Your task to perform on an android device: What is the news today? Image 0: 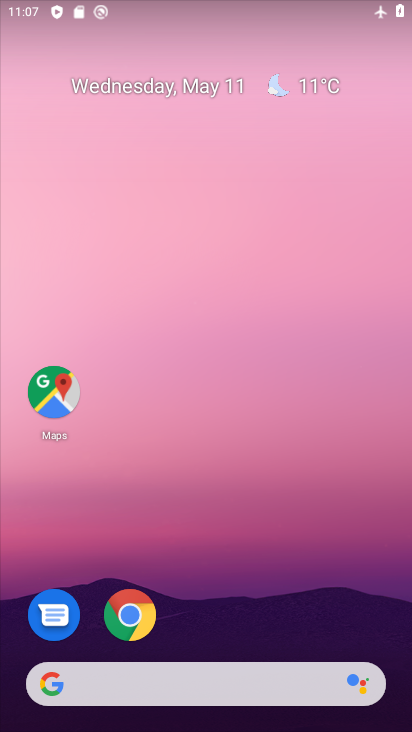
Step 0: click (122, 615)
Your task to perform on an android device: What is the news today? Image 1: 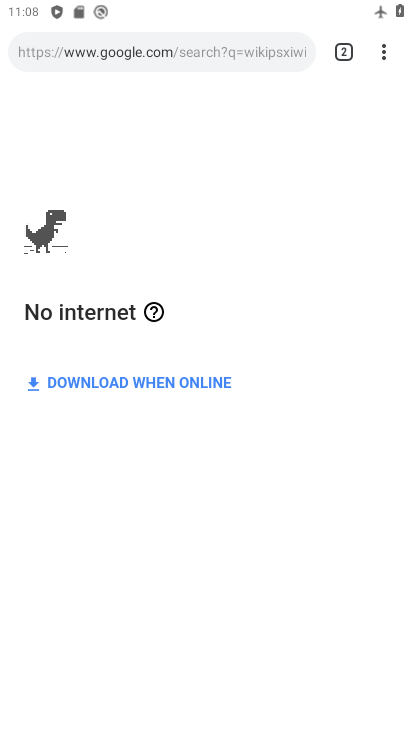
Step 1: click (200, 50)
Your task to perform on an android device: What is the news today? Image 2: 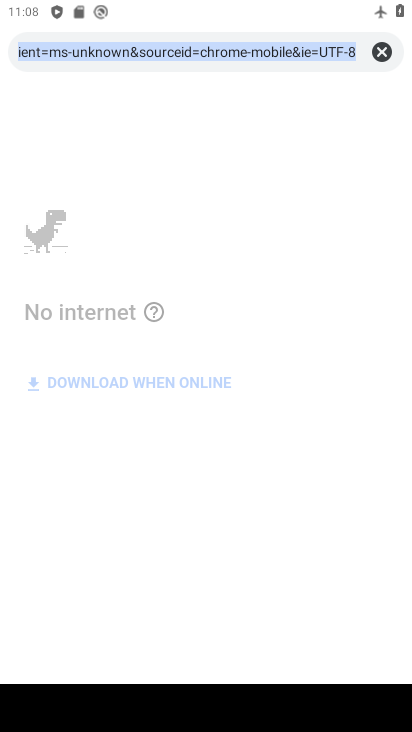
Step 2: type "news"
Your task to perform on an android device: What is the news today? Image 3: 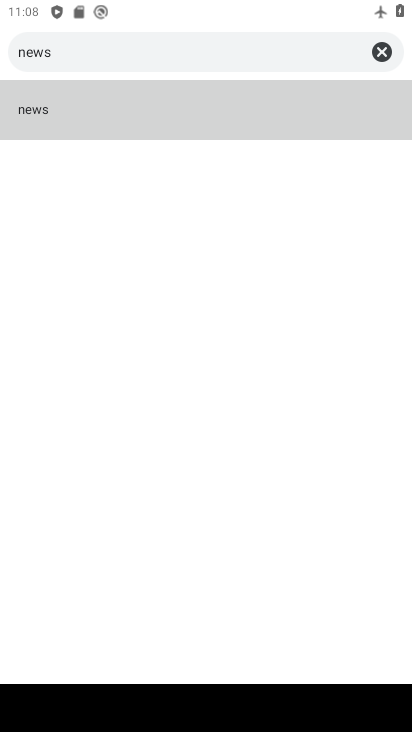
Step 3: click (45, 108)
Your task to perform on an android device: What is the news today? Image 4: 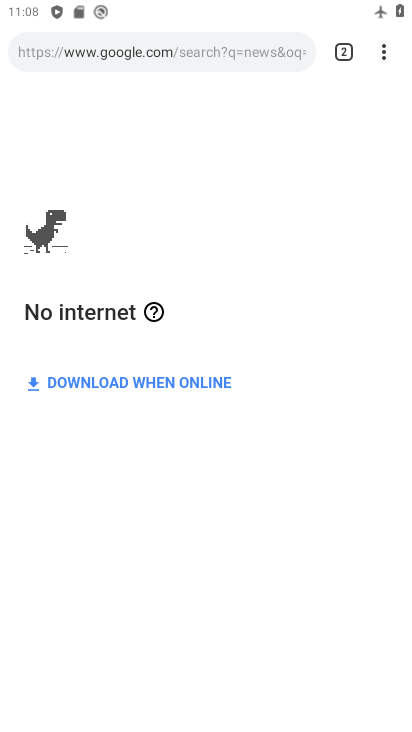
Step 4: task complete